Your task to perform on an android device: Open Google Chrome and open the bookmarks view Image 0: 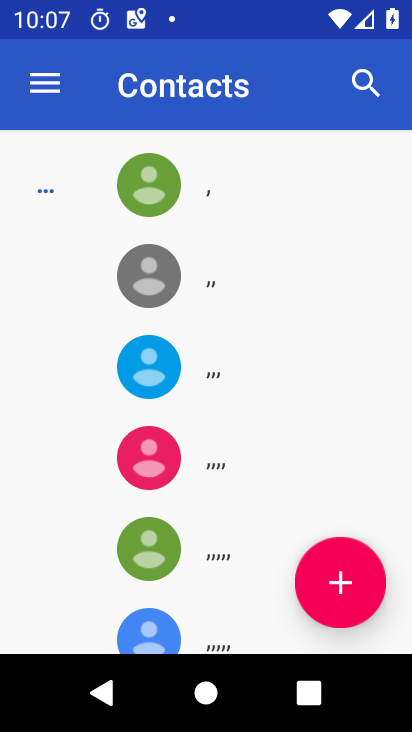
Step 0: press home button
Your task to perform on an android device: Open Google Chrome and open the bookmarks view Image 1: 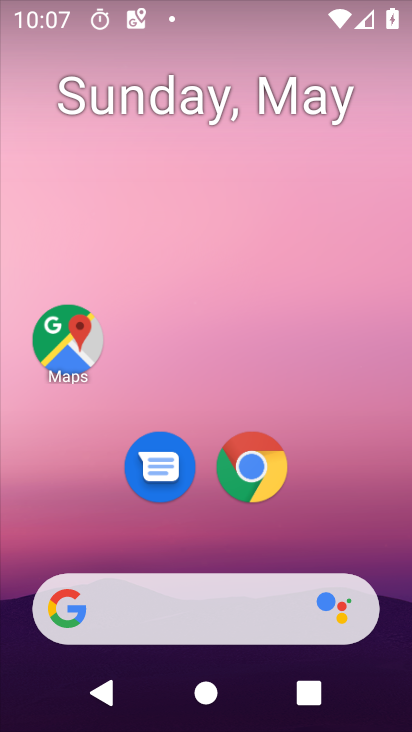
Step 1: click (252, 450)
Your task to perform on an android device: Open Google Chrome and open the bookmarks view Image 2: 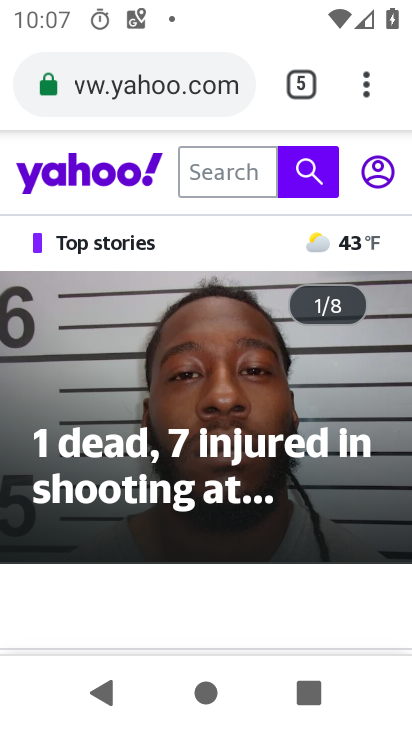
Step 2: task complete